Your task to perform on an android device: What's the weather like in Beijing? Image 0: 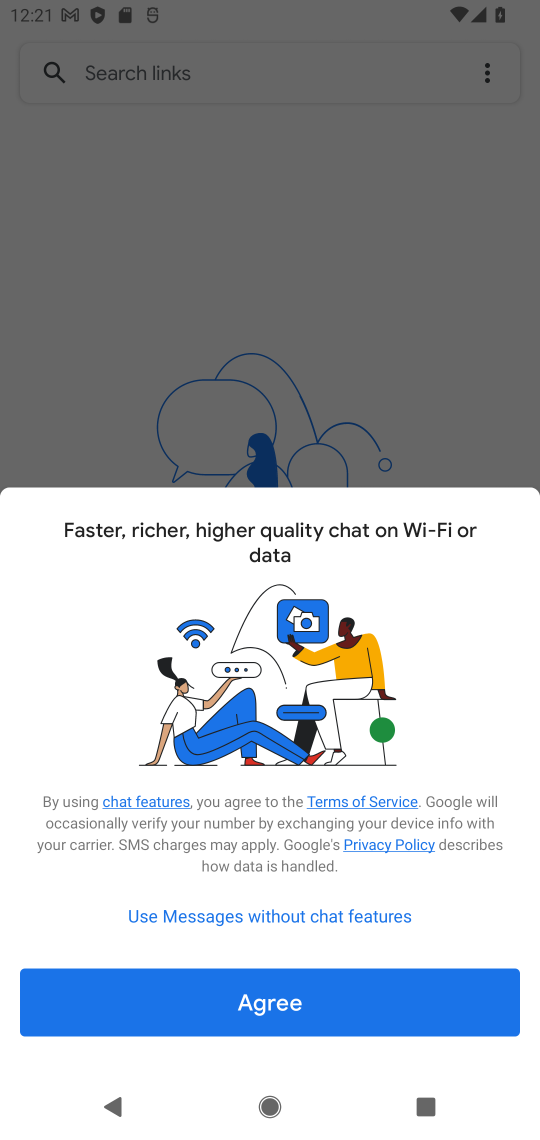
Step 0: press home button
Your task to perform on an android device: What's the weather like in Beijing? Image 1: 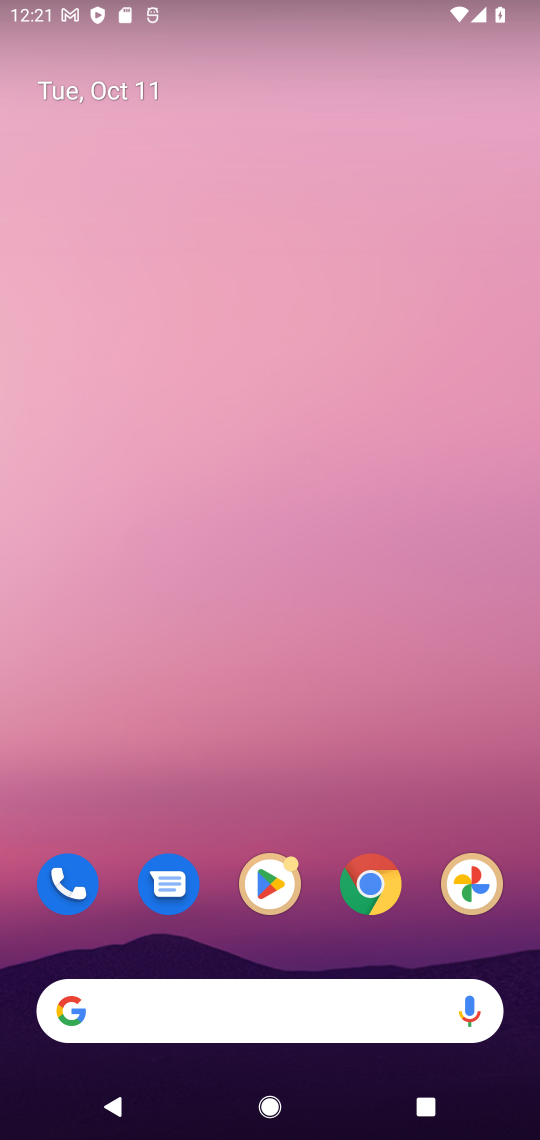
Step 1: drag from (227, 716) to (267, 135)
Your task to perform on an android device: What's the weather like in Beijing? Image 2: 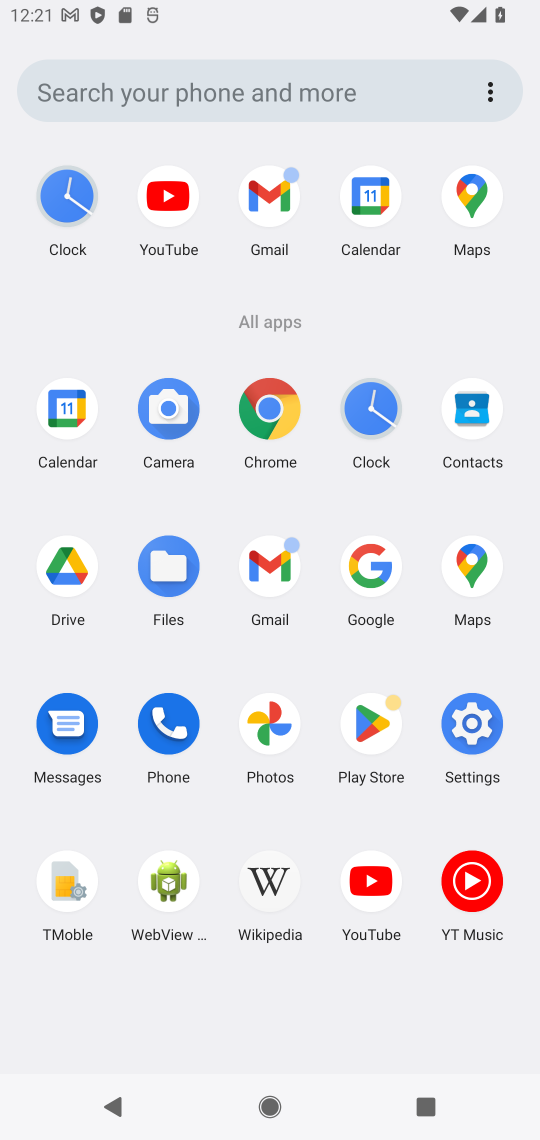
Step 2: click (377, 588)
Your task to perform on an android device: What's the weather like in Beijing? Image 3: 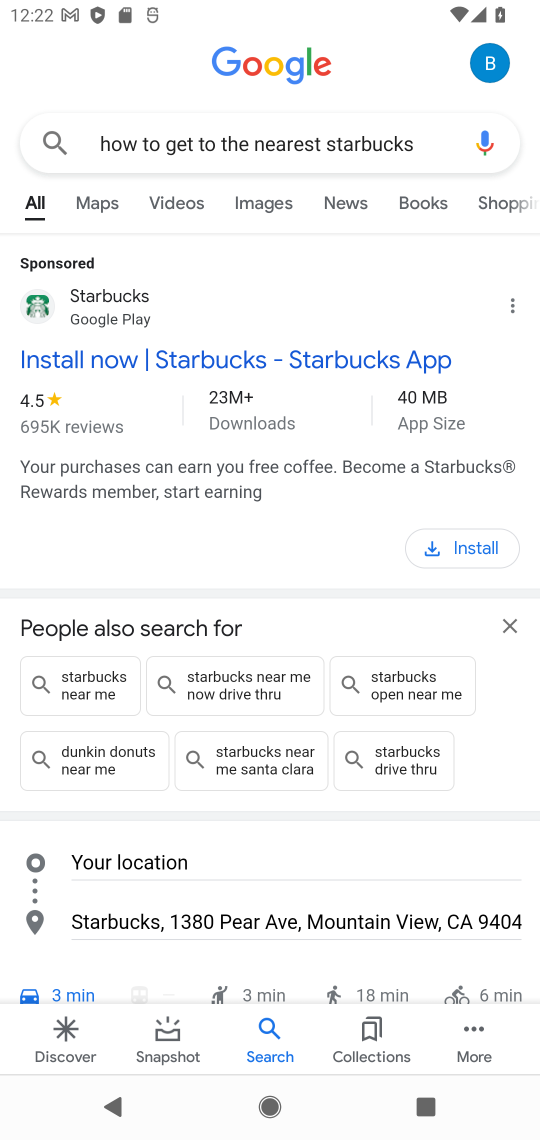
Step 3: task complete